Your task to perform on an android device: Go to eBay Image 0: 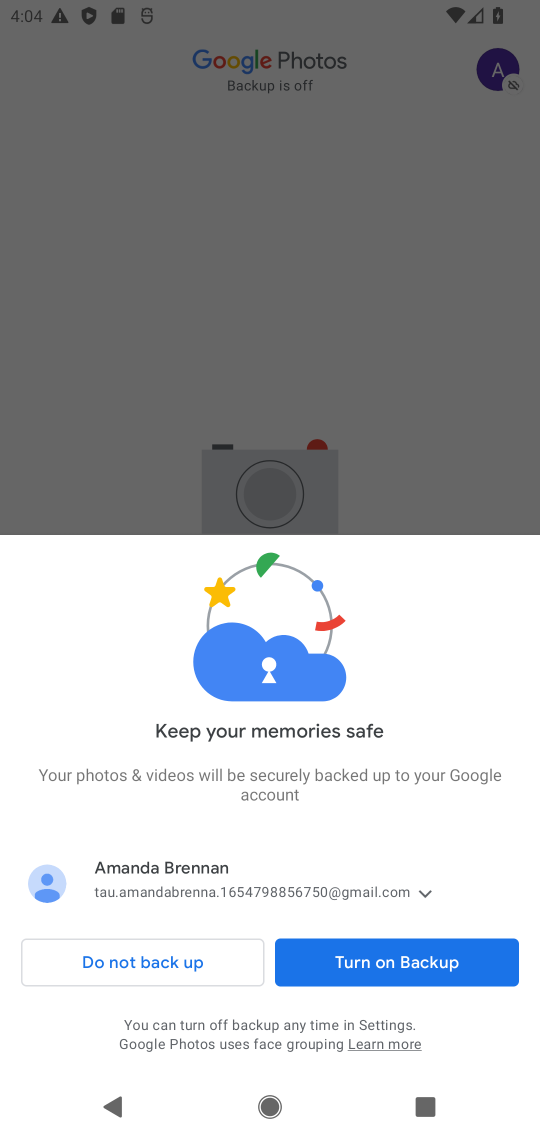
Step 0: press home button
Your task to perform on an android device: Go to eBay Image 1: 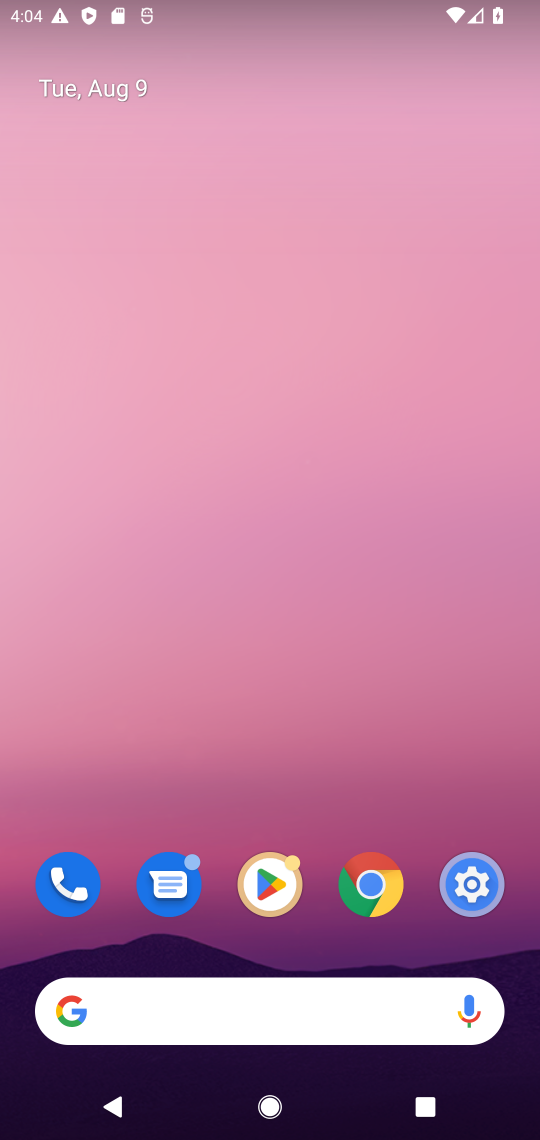
Step 1: click (370, 873)
Your task to perform on an android device: Go to eBay Image 2: 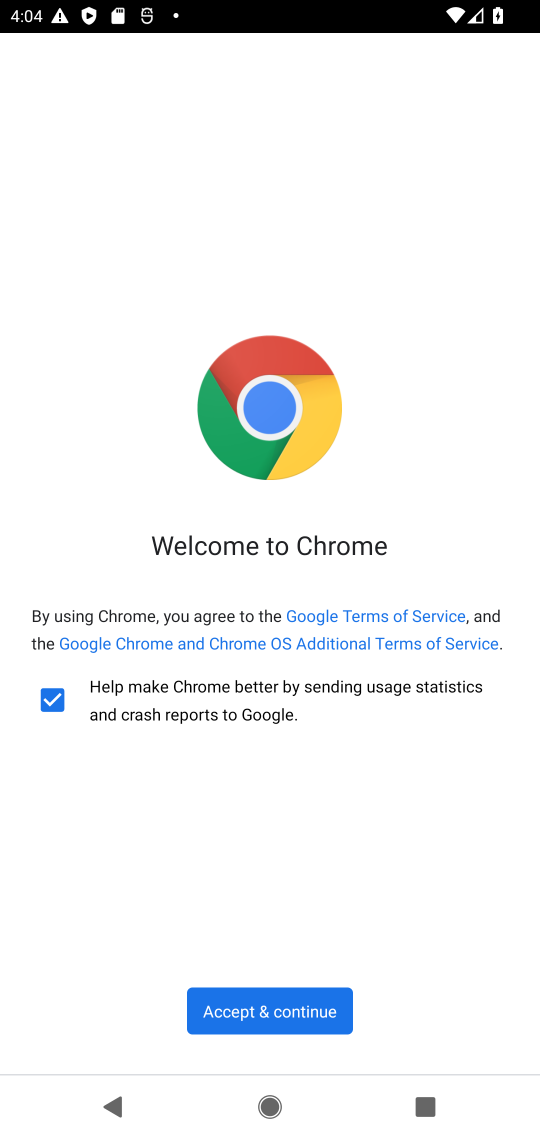
Step 2: click (271, 1011)
Your task to perform on an android device: Go to eBay Image 3: 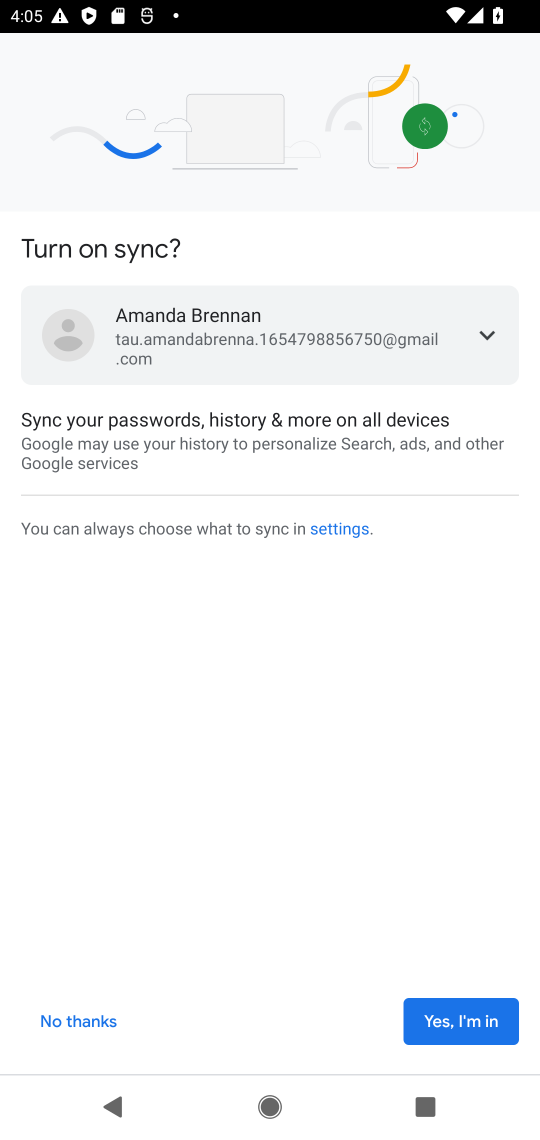
Step 3: click (482, 1016)
Your task to perform on an android device: Go to eBay Image 4: 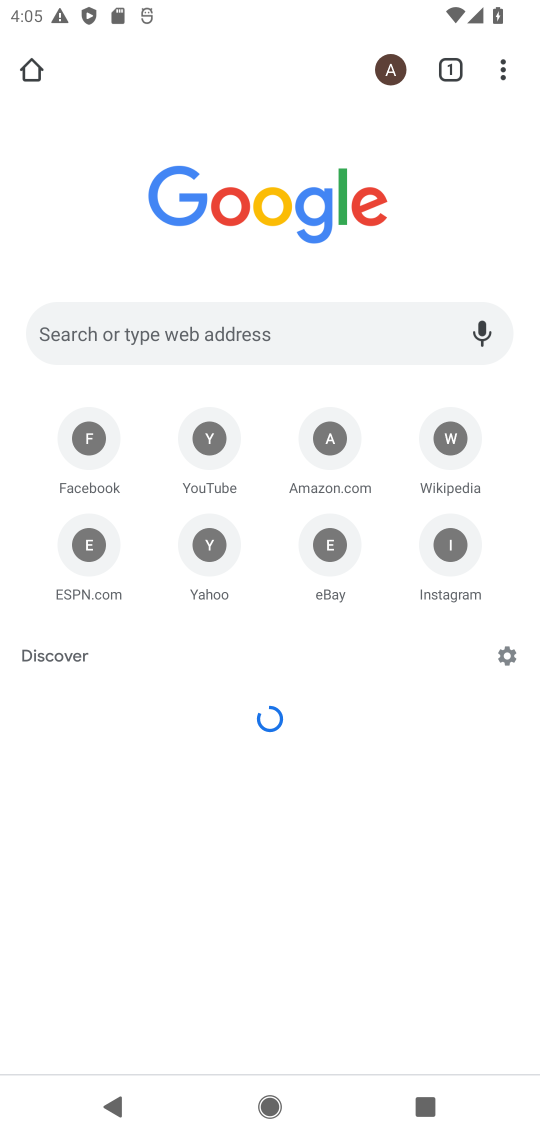
Step 4: click (323, 531)
Your task to perform on an android device: Go to eBay Image 5: 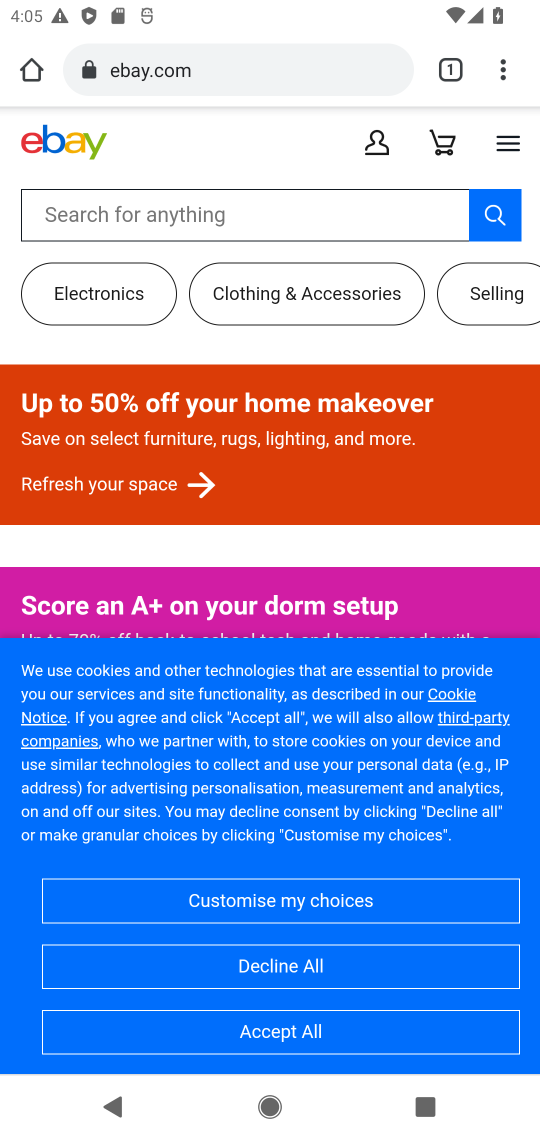
Step 5: task complete